Your task to perform on an android device: Open Youtube and go to "Your channel" Image 0: 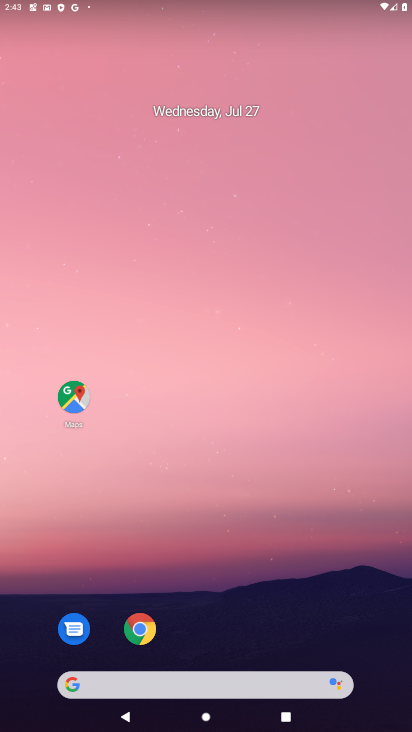
Step 0: drag from (318, 661) to (287, 67)
Your task to perform on an android device: Open Youtube and go to "Your channel" Image 1: 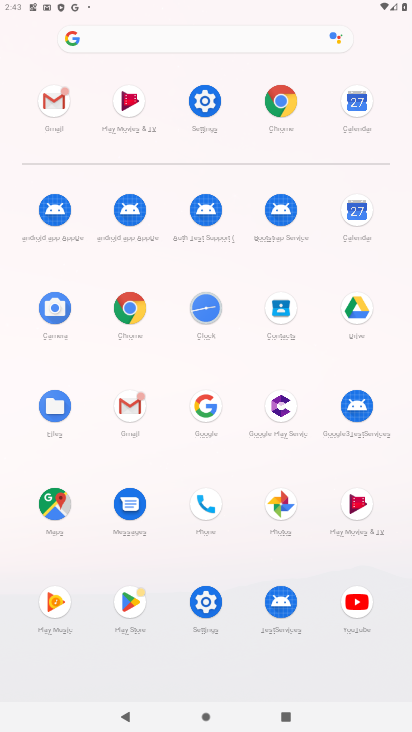
Step 1: click (356, 582)
Your task to perform on an android device: Open Youtube and go to "Your channel" Image 2: 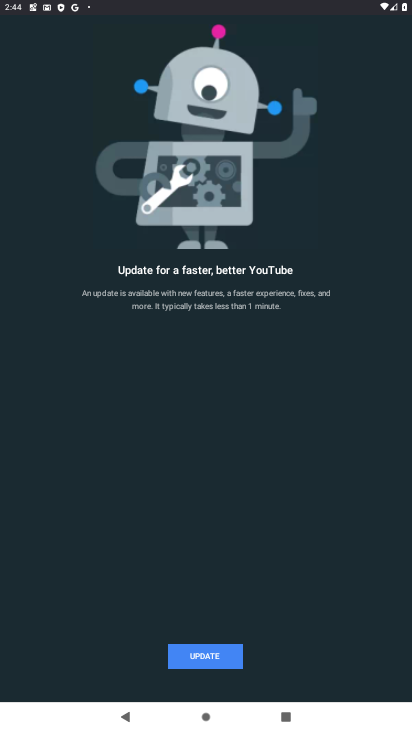
Step 2: click (213, 641)
Your task to perform on an android device: Open Youtube and go to "Your channel" Image 3: 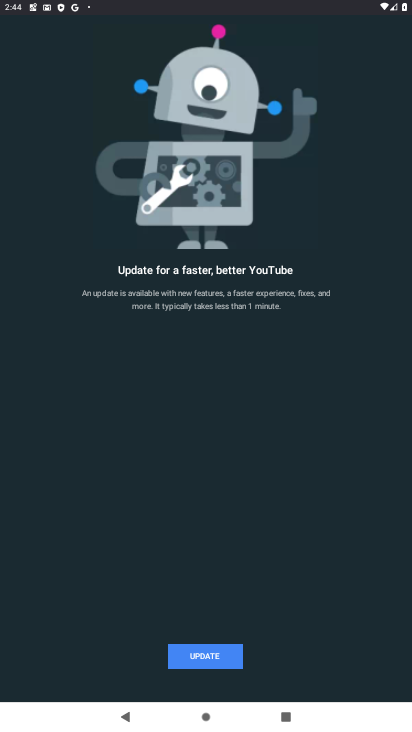
Step 3: click (203, 654)
Your task to perform on an android device: Open Youtube and go to "Your channel" Image 4: 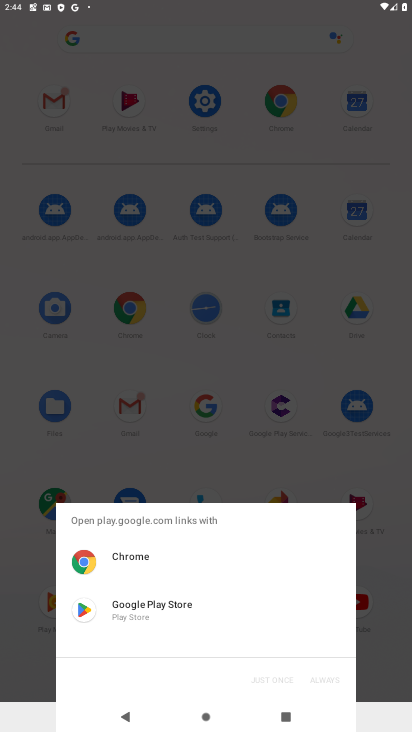
Step 4: click (194, 607)
Your task to perform on an android device: Open Youtube and go to "Your channel" Image 5: 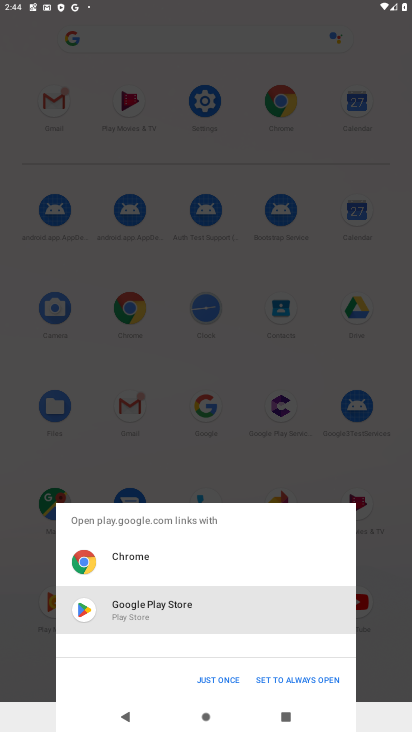
Step 5: click (219, 673)
Your task to perform on an android device: Open Youtube and go to "Your channel" Image 6: 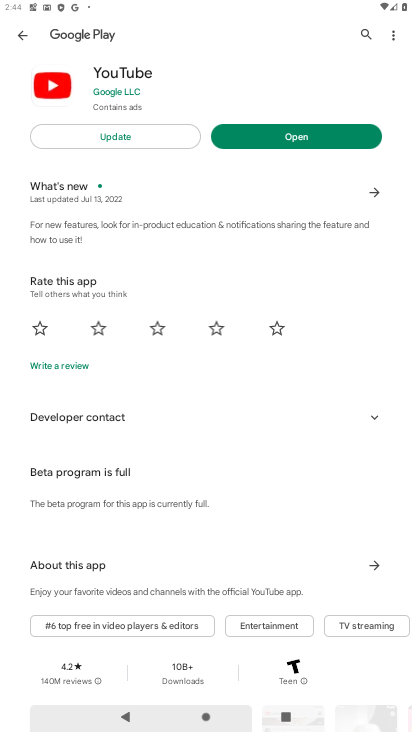
Step 6: click (147, 132)
Your task to perform on an android device: Open Youtube and go to "Your channel" Image 7: 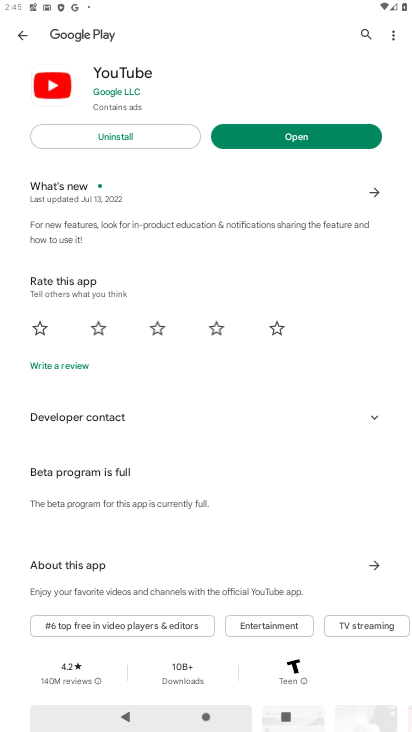
Step 7: task complete